Your task to perform on an android device: Go to Reddit.com Image 0: 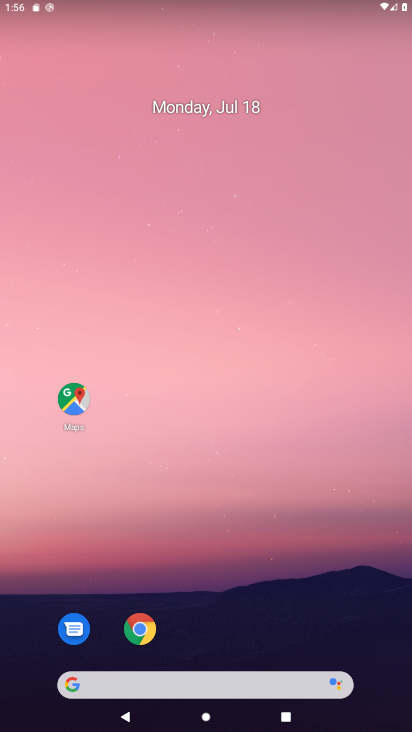
Step 0: click (141, 631)
Your task to perform on an android device: Go to Reddit.com Image 1: 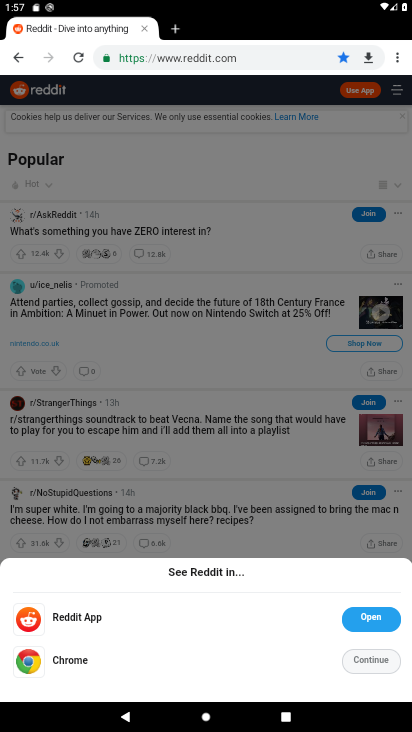
Step 1: task complete